Your task to perform on an android device: turn on showing notifications on the lock screen Image 0: 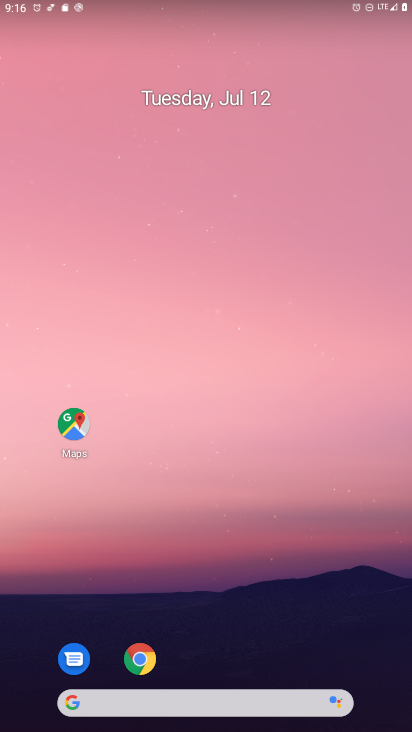
Step 0: drag from (176, 714) to (240, 124)
Your task to perform on an android device: turn on showing notifications on the lock screen Image 1: 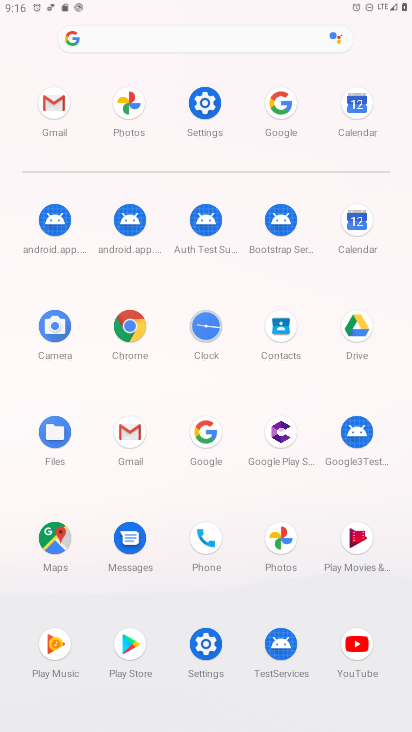
Step 1: click (204, 104)
Your task to perform on an android device: turn on showing notifications on the lock screen Image 2: 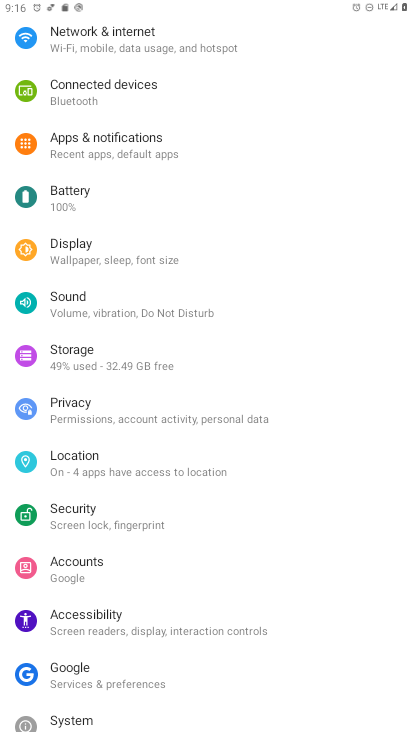
Step 2: click (155, 144)
Your task to perform on an android device: turn on showing notifications on the lock screen Image 3: 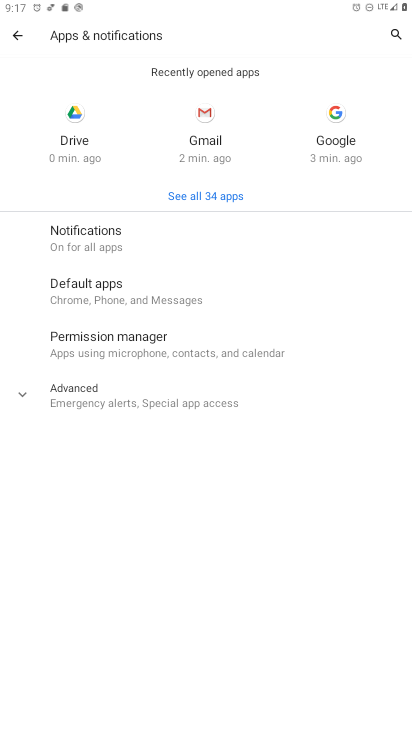
Step 3: click (105, 230)
Your task to perform on an android device: turn on showing notifications on the lock screen Image 4: 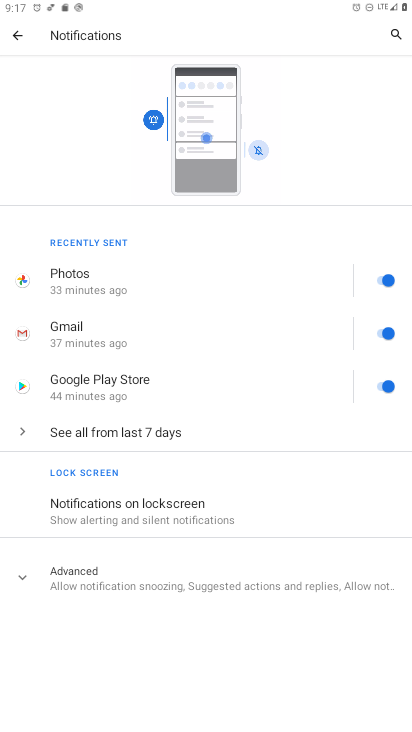
Step 4: click (146, 514)
Your task to perform on an android device: turn on showing notifications on the lock screen Image 5: 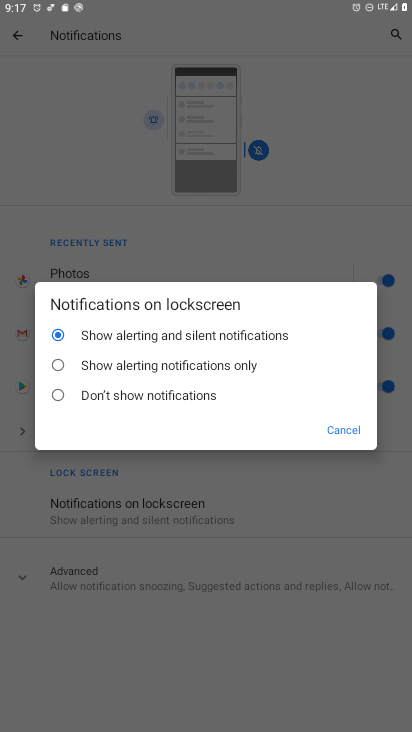
Step 5: click (56, 335)
Your task to perform on an android device: turn on showing notifications on the lock screen Image 6: 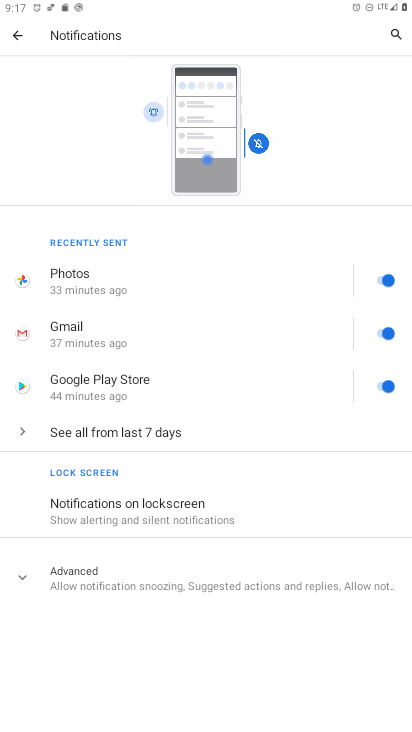
Step 6: task complete